Your task to perform on an android device: set the timer Image 0: 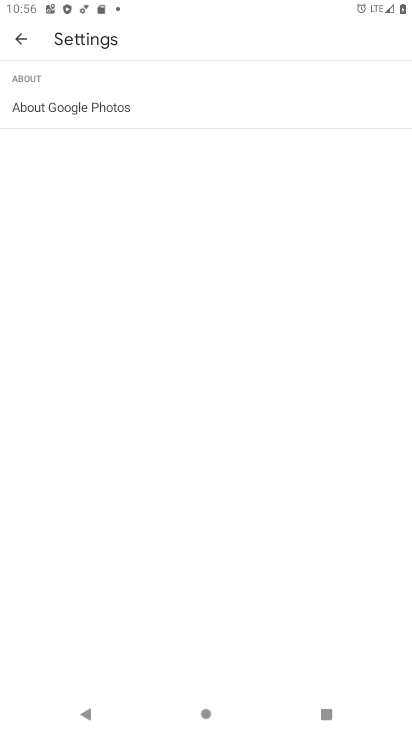
Step 0: press home button
Your task to perform on an android device: set the timer Image 1: 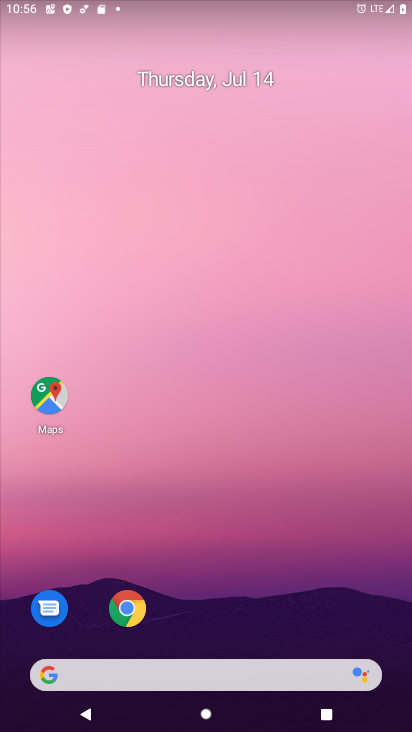
Step 1: drag from (233, 715) to (227, 40)
Your task to perform on an android device: set the timer Image 2: 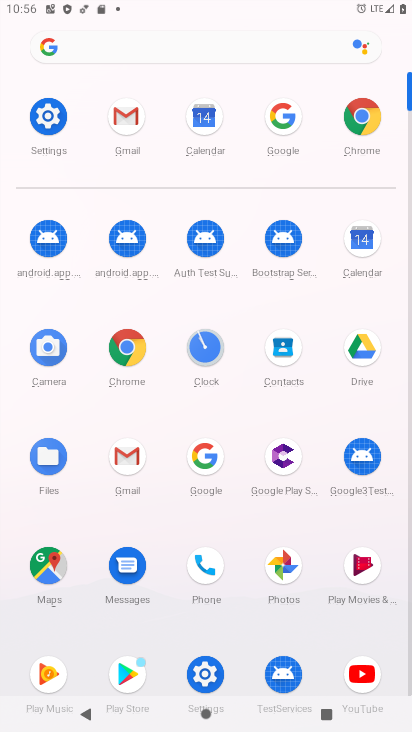
Step 2: click (204, 340)
Your task to perform on an android device: set the timer Image 3: 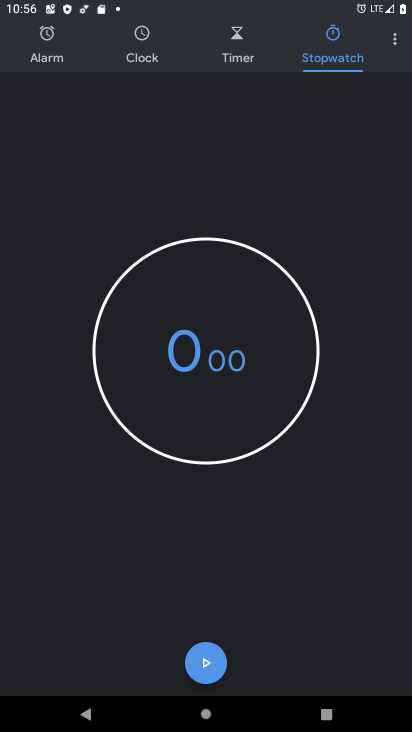
Step 3: click (244, 49)
Your task to perform on an android device: set the timer Image 4: 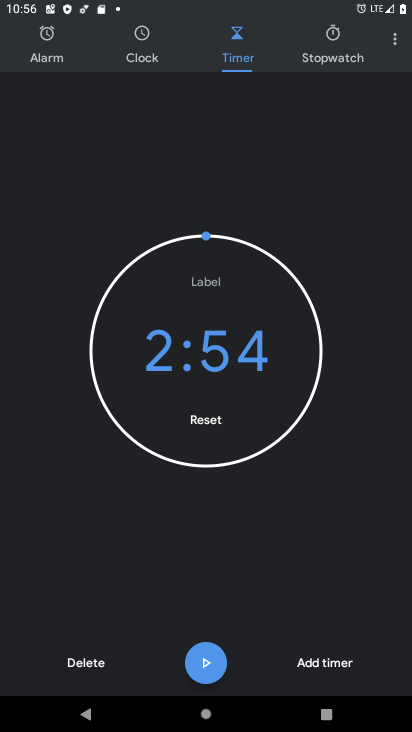
Step 4: click (330, 661)
Your task to perform on an android device: set the timer Image 5: 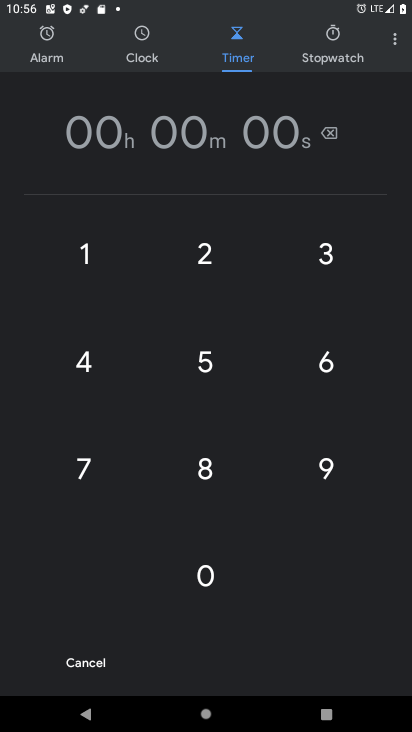
Step 5: click (203, 349)
Your task to perform on an android device: set the timer Image 6: 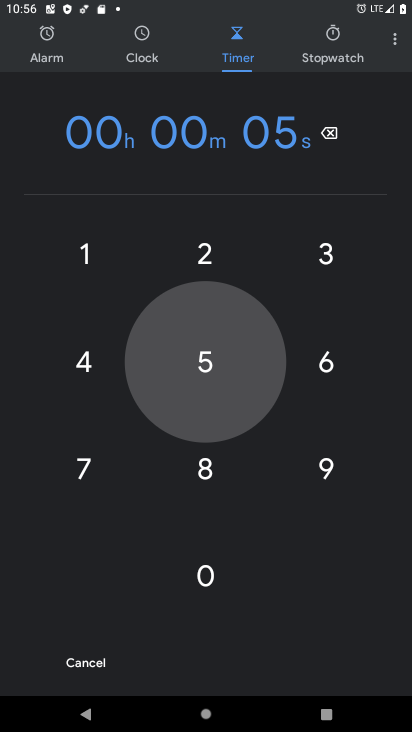
Step 6: click (74, 358)
Your task to perform on an android device: set the timer Image 7: 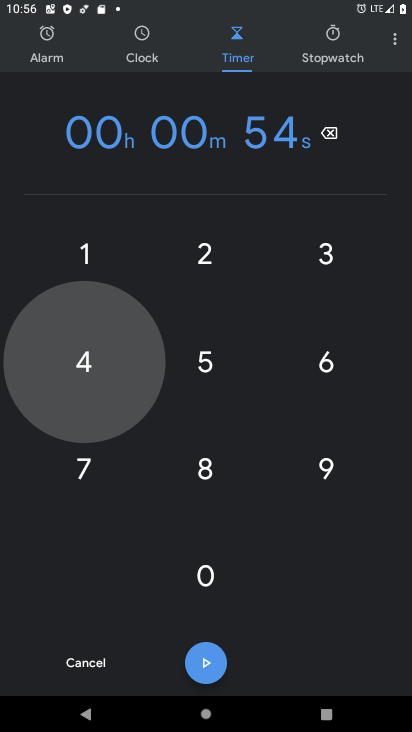
Step 7: click (85, 441)
Your task to perform on an android device: set the timer Image 8: 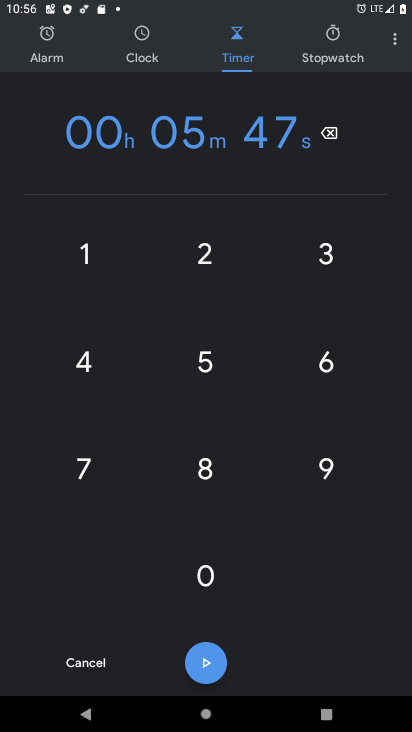
Step 8: click (79, 248)
Your task to perform on an android device: set the timer Image 9: 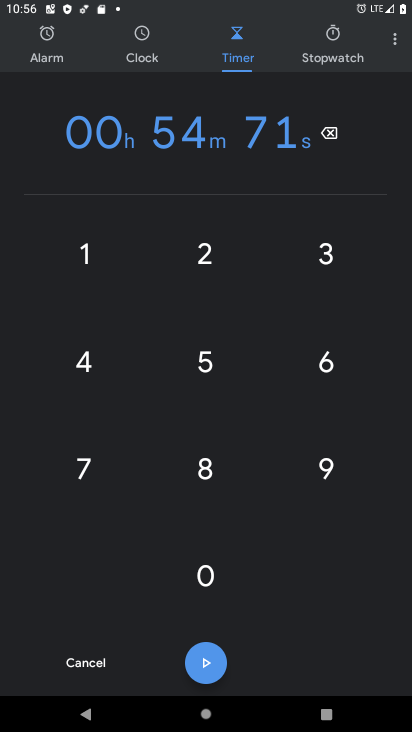
Step 9: click (198, 662)
Your task to perform on an android device: set the timer Image 10: 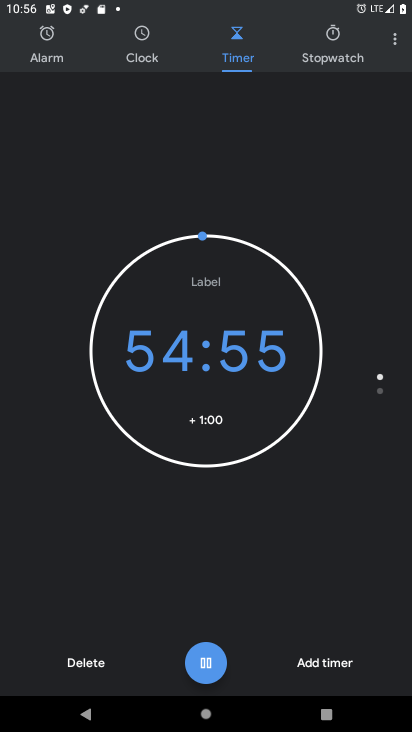
Step 10: task complete